Your task to perform on an android device: delete a single message in the gmail app Image 0: 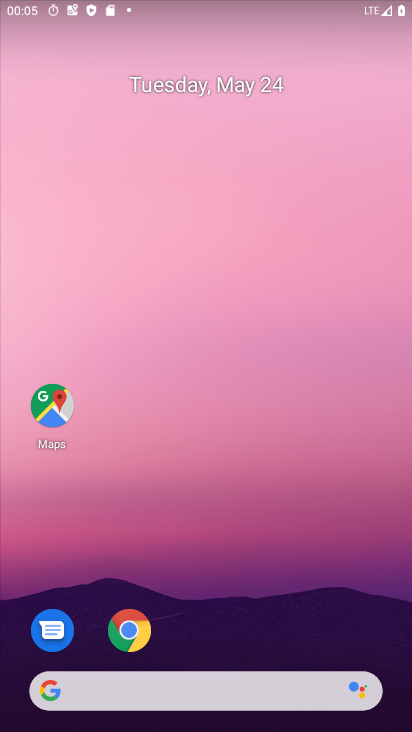
Step 0: drag from (201, 645) to (237, 2)
Your task to perform on an android device: delete a single message in the gmail app Image 1: 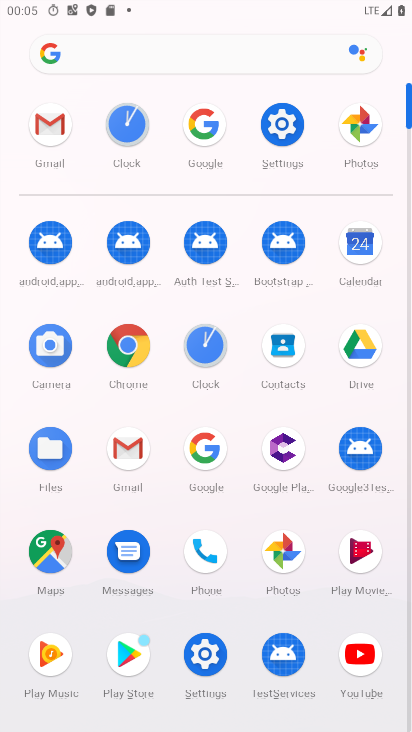
Step 1: click (50, 131)
Your task to perform on an android device: delete a single message in the gmail app Image 2: 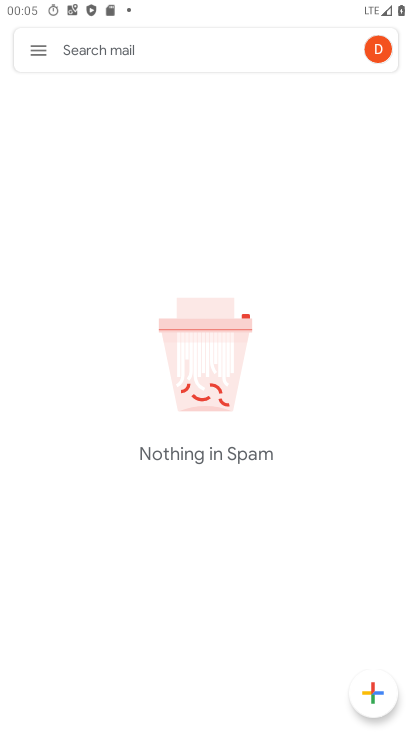
Step 2: click (43, 53)
Your task to perform on an android device: delete a single message in the gmail app Image 3: 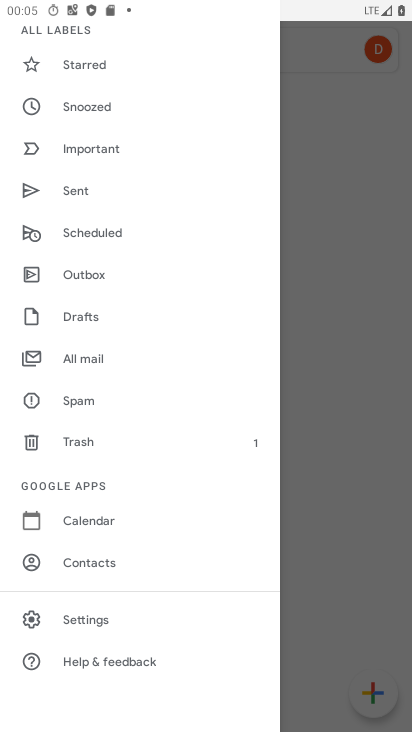
Step 3: click (92, 367)
Your task to perform on an android device: delete a single message in the gmail app Image 4: 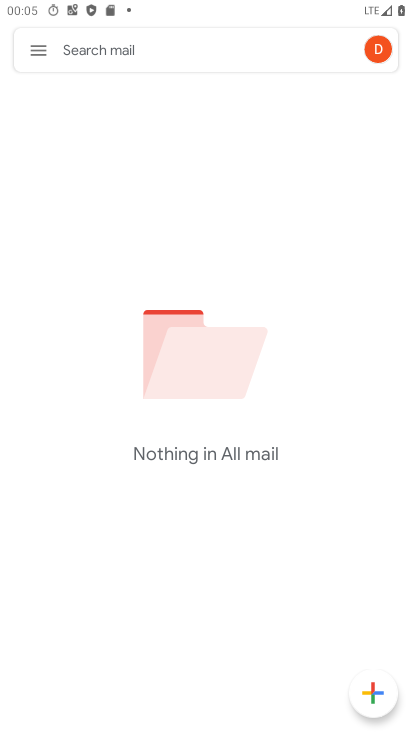
Step 4: task complete